Your task to perform on an android device: Check out the new nike air max 2020. Image 0: 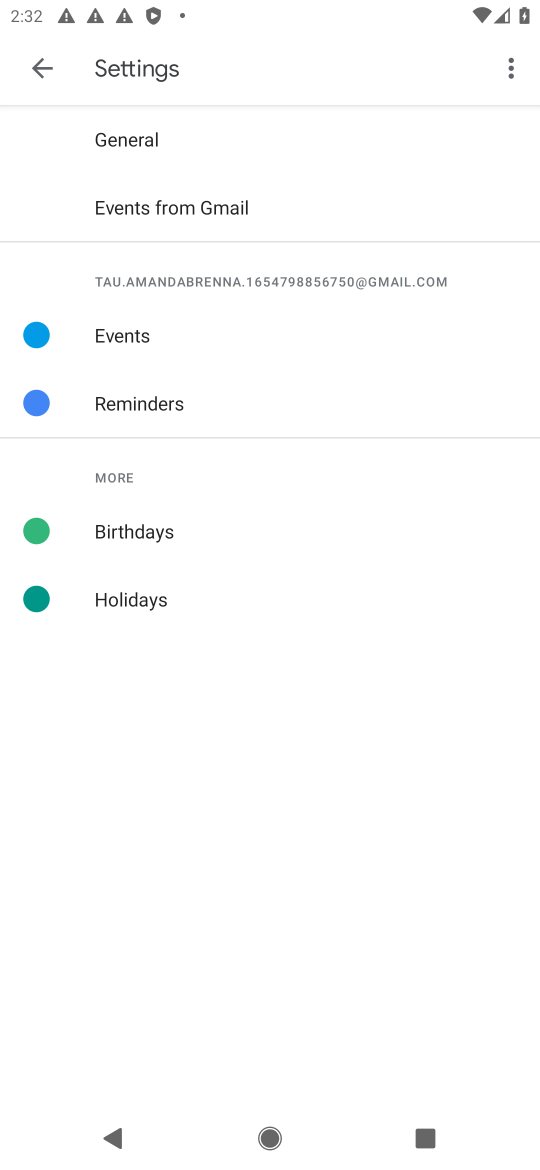
Step 0: press home button
Your task to perform on an android device: Check out the new nike air max 2020. Image 1: 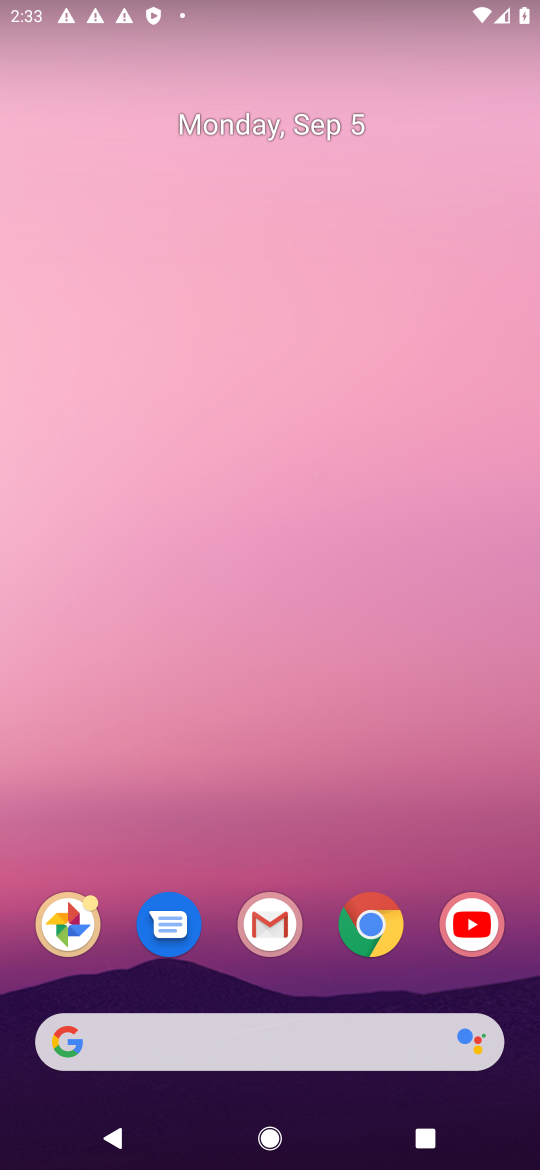
Step 1: click (276, 557)
Your task to perform on an android device: Check out the new nike air max 2020. Image 2: 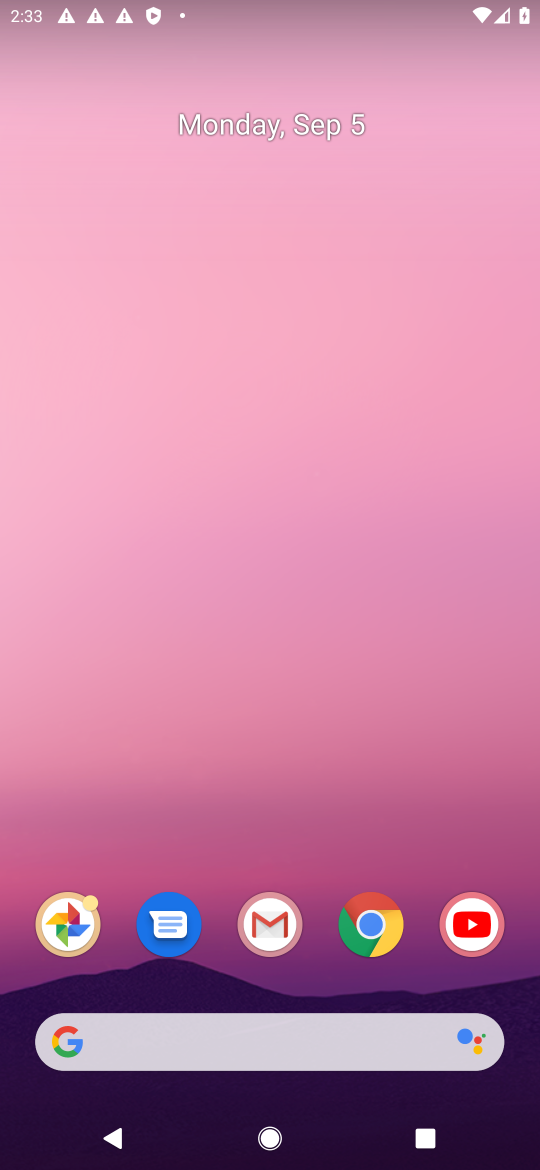
Step 2: click (408, 157)
Your task to perform on an android device: Check out the new nike air max 2020. Image 3: 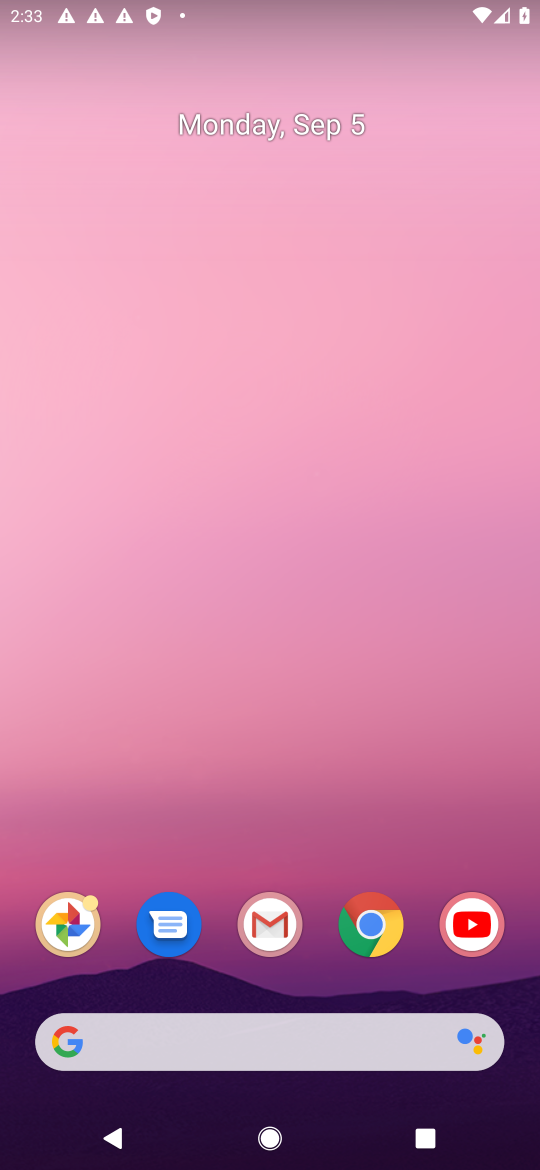
Step 3: drag from (305, 774) to (291, 339)
Your task to perform on an android device: Check out the new nike air max 2020. Image 4: 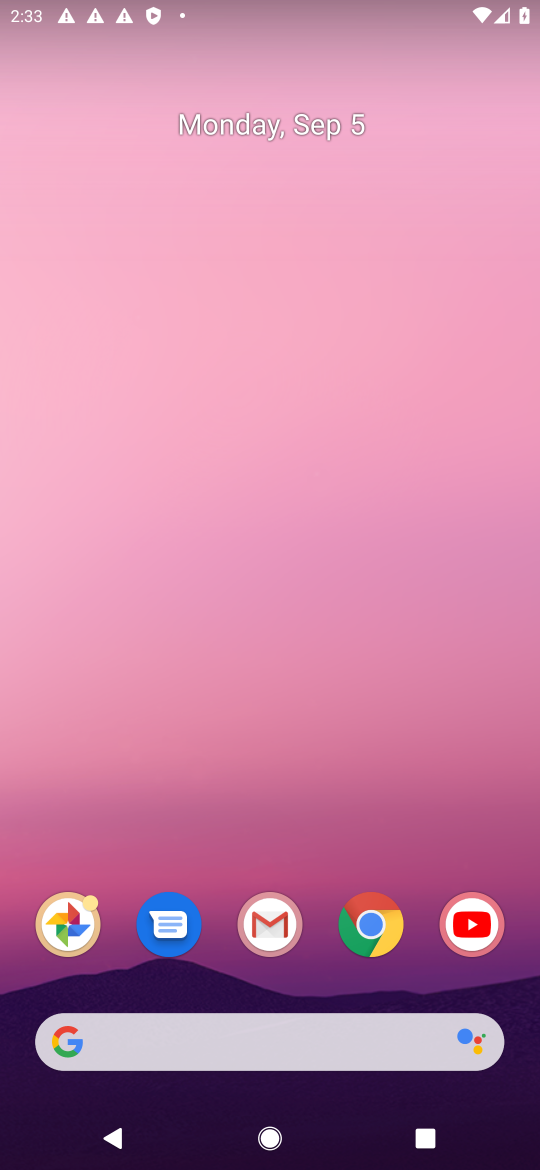
Step 4: click (367, 927)
Your task to perform on an android device: Check out the new nike air max 2020. Image 5: 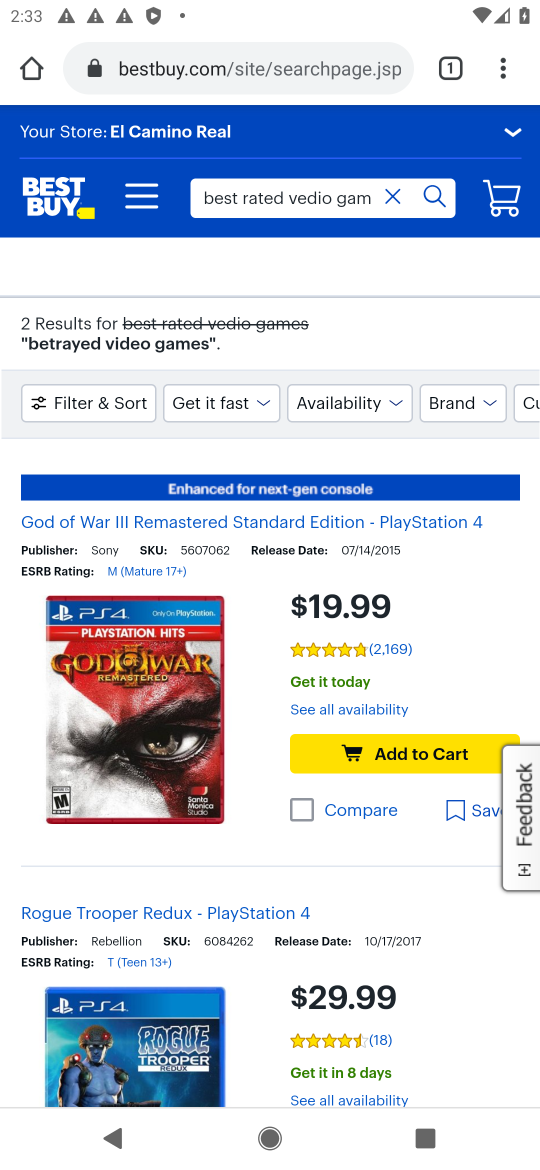
Step 5: click (311, 74)
Your task to perform on an android device: Check out the new nike air max 2020. Image 6: 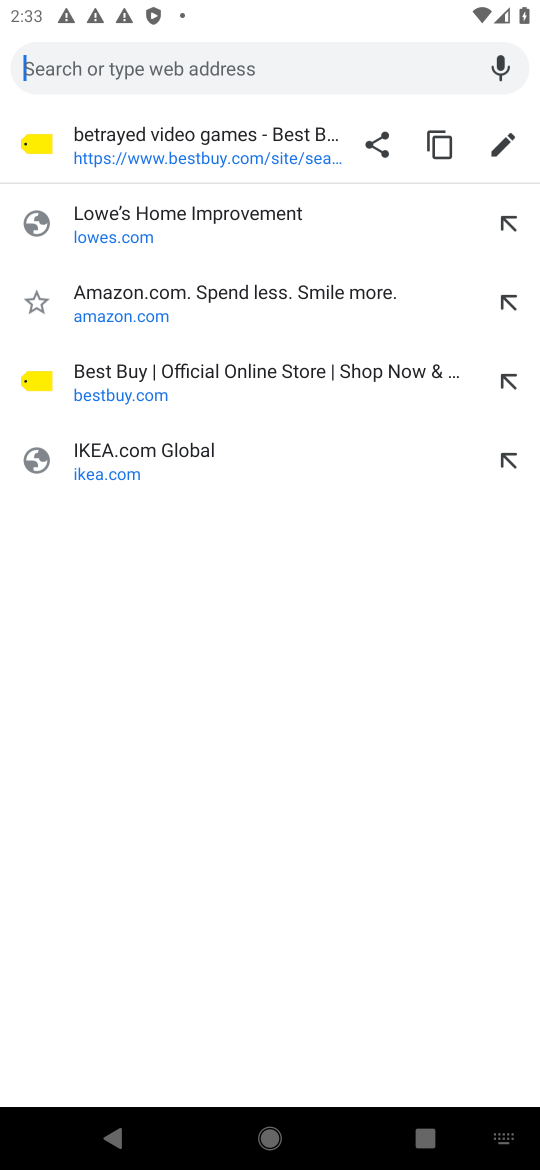
Step 6: type "new air max 2020"
Your task to perform on an android device: Check out the new nike air max 2020. Image 7: 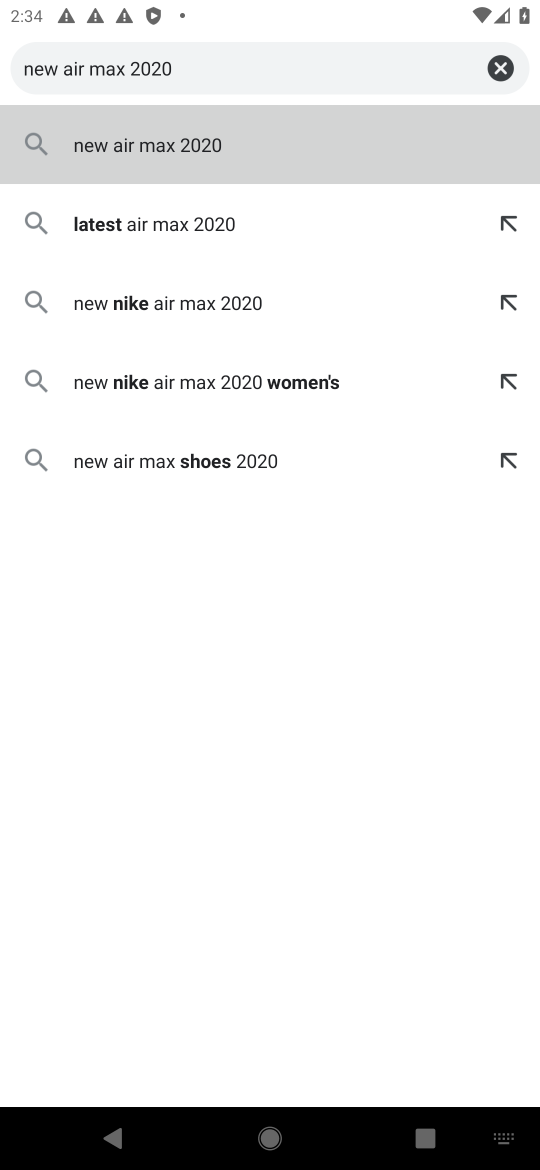
Step 7: click (300, 135)
Your task to perform on an android device: Check out the new nike air max 2020. Image 8: 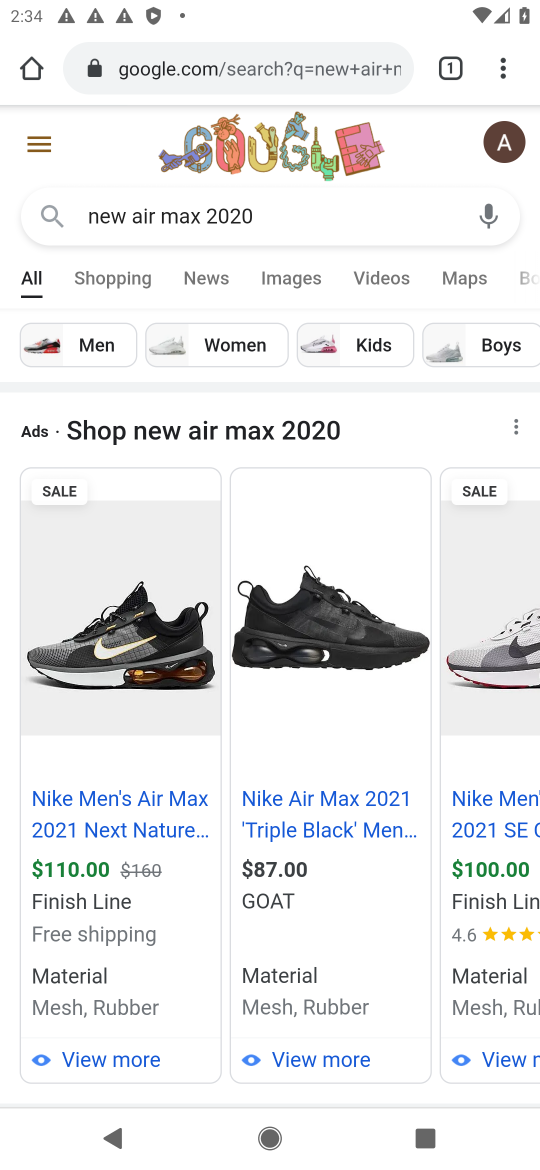
Step 8: task complete